Your task to perform on an android device: open chrome and create a bookmark for the current page Image 0: 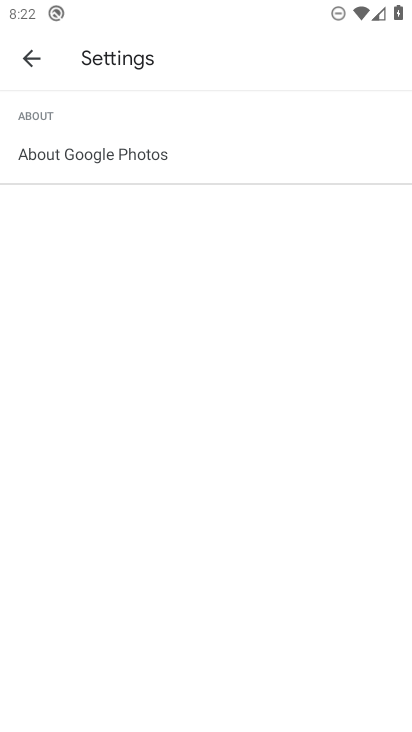
Step 0: press home button
Your task to perform on an android device: open chrome and create a bookmark for the current page Image 1: 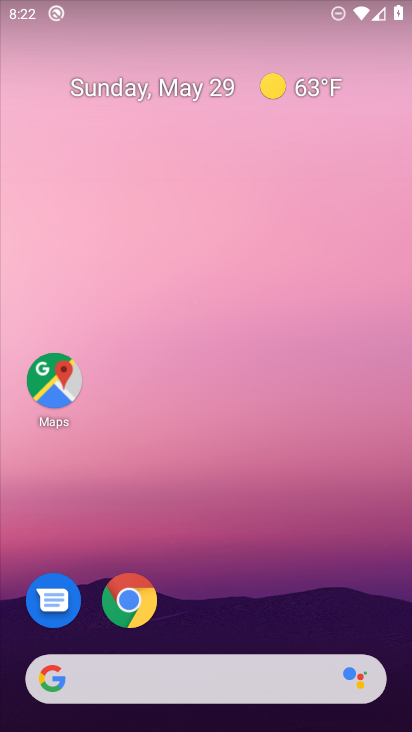
Step 1: click (126, 595)
Your task to perform on an android device: open chrome and create a bookmark for the current page Image 2: 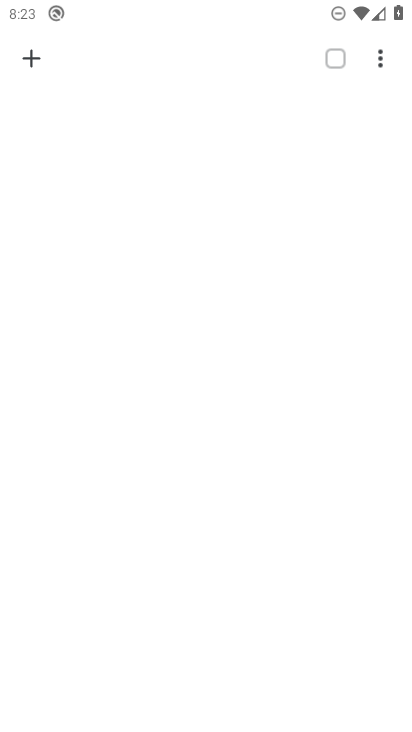
Step 2: click (39, 52)
Your task to perform on an android device: open chrome and create a bookmark for the current page Image 3: 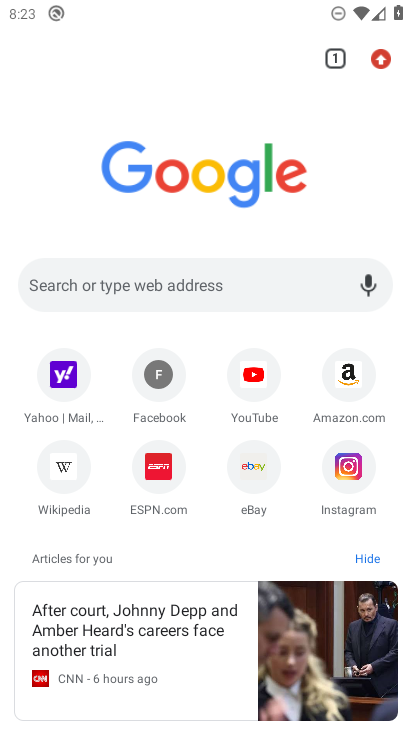
Step 3: click (391, 59)
Your task to perform on an android device: open chrome and create a bookmark for the current page Image 4: 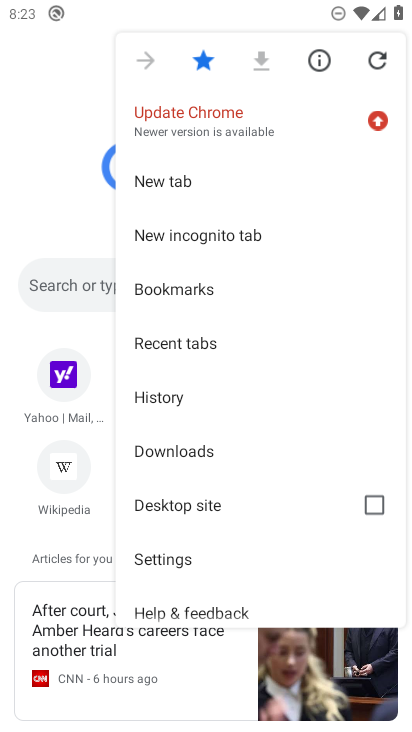
Step 4: task complete